Your task to perform on an android device: Clear the shopping cart on ebay. Add dell xps to the cart on ebay, then select checkout. Image 0: 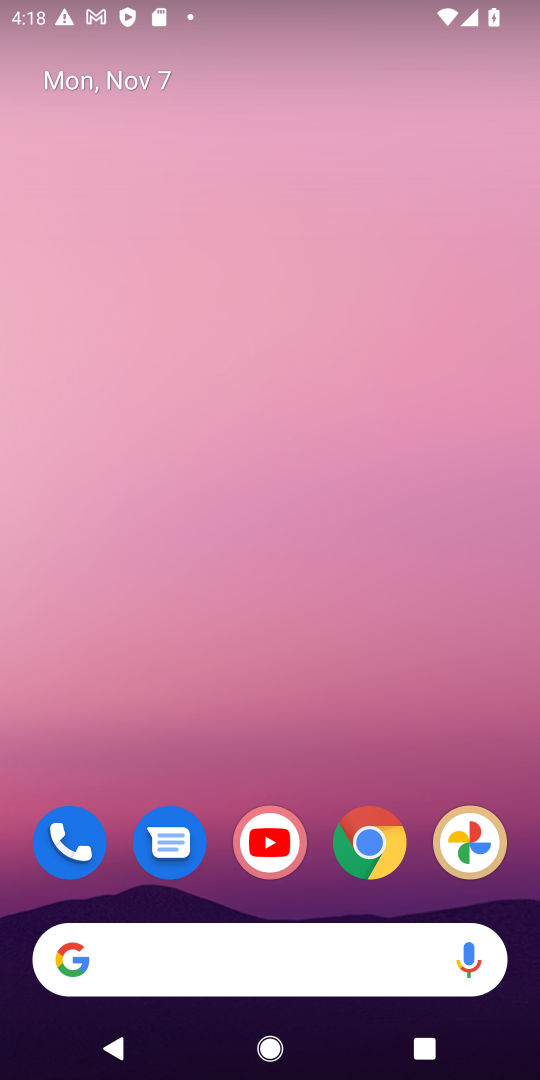
Step 0: drag from (90, 915) to (37, 194)
Your task to perform on an android device: Clear the shopping cart on ebay. Add dell xps to the cart on ebay, then select checkout. Image 1: 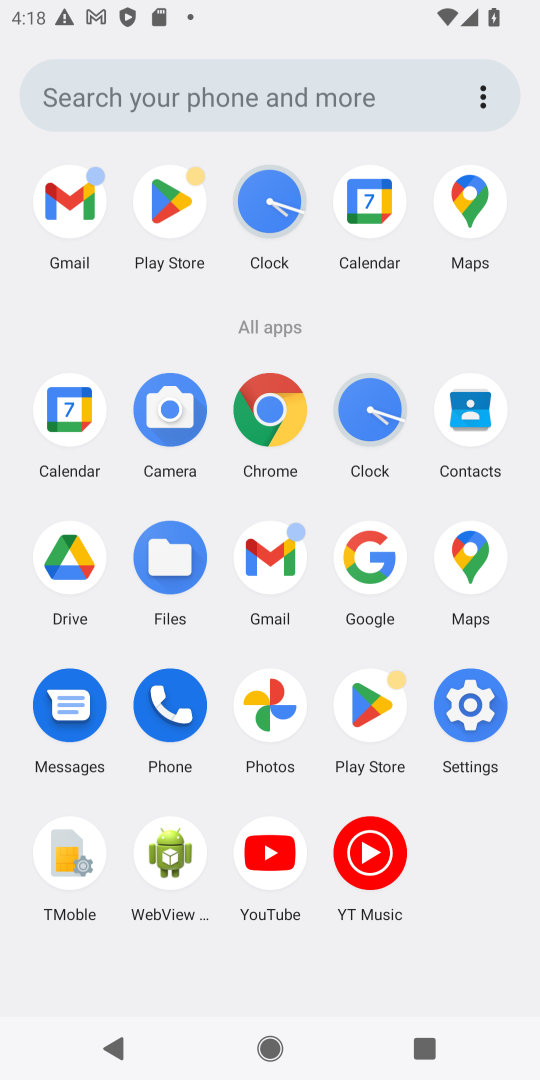
Step 1: click (262, 422)
Your task to perform on an android device: Clear the shopping cart on ebay. Add dell xps to the cart on ebay, then select checkout. Image 2: 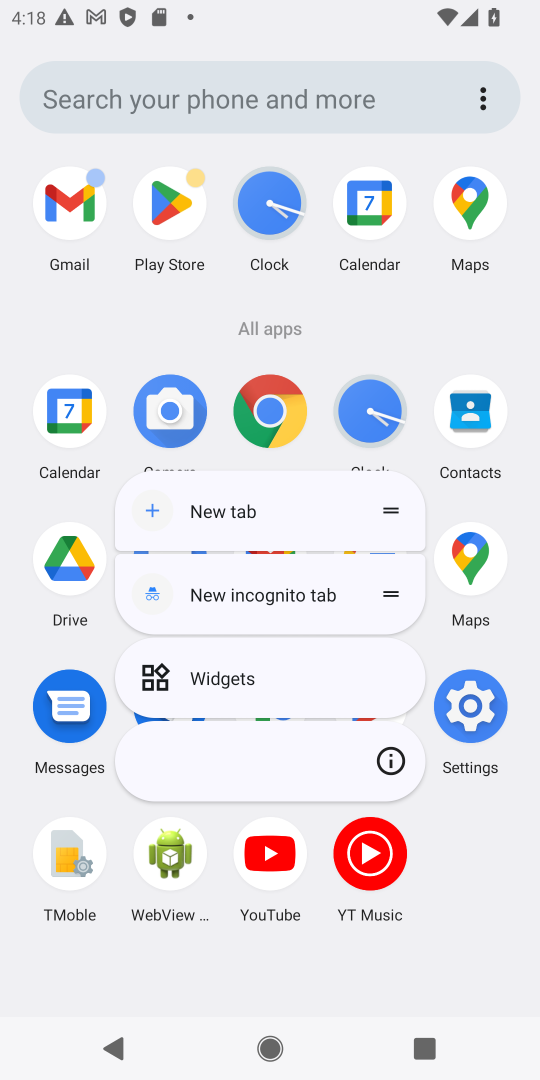
Step 2: click (258, 423)
Your task to perform on an android device: Clear the shopping cart on ebay. Add dell xps to the cart on ebay, then select checkout. Image 3: 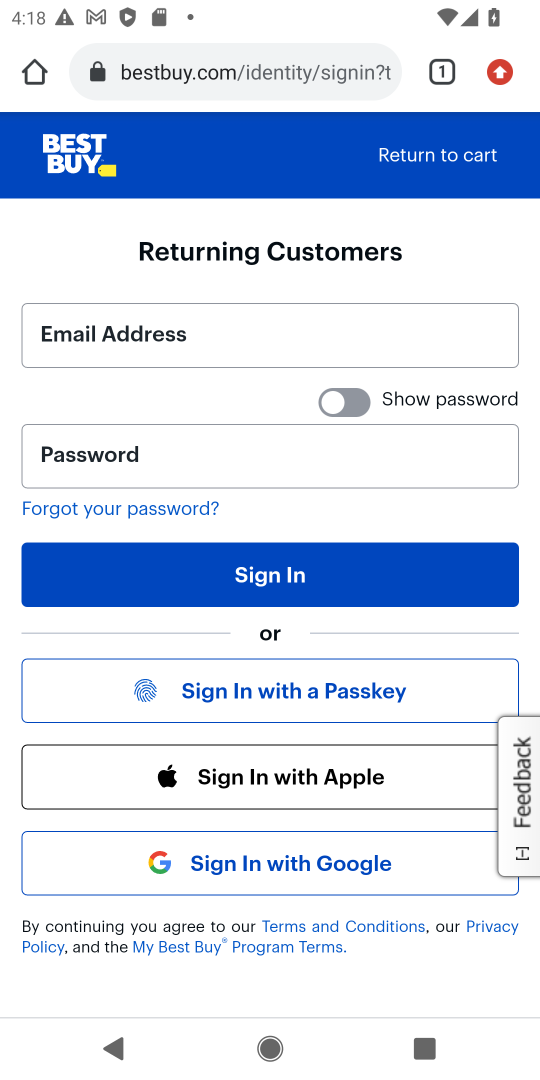
Step 3: click (227, 70)
Your task to perform on an android device: Clear the shopping cart on ebay. Add dell xps to the cart on ebay, then select checkout. Image 4: 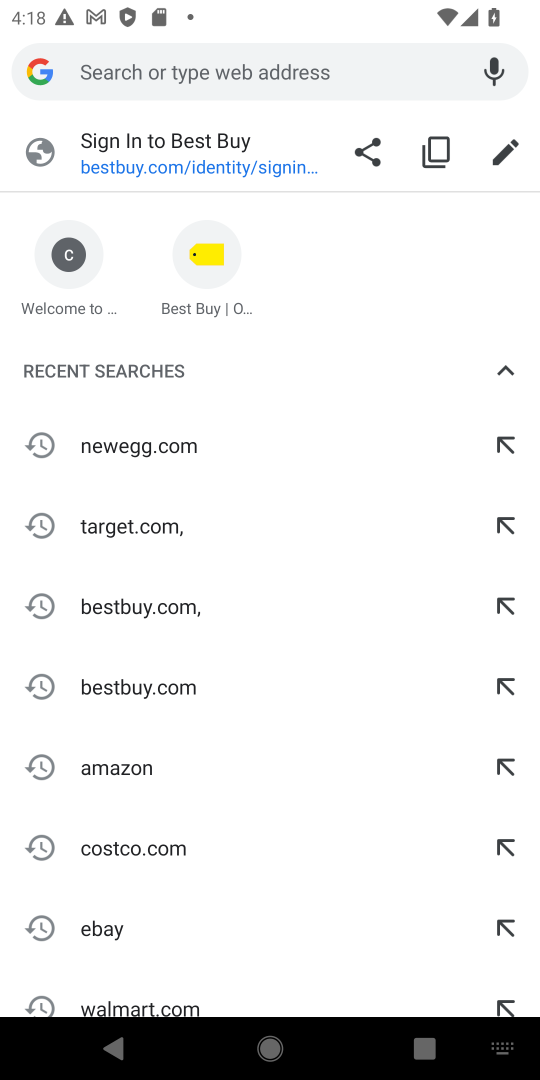
Step 4: type "ebay"
Your task to perform on an android device: Clear the shopping cart on ebay. Add dell xps to the cart on ebay, then select checkout. Image 5: 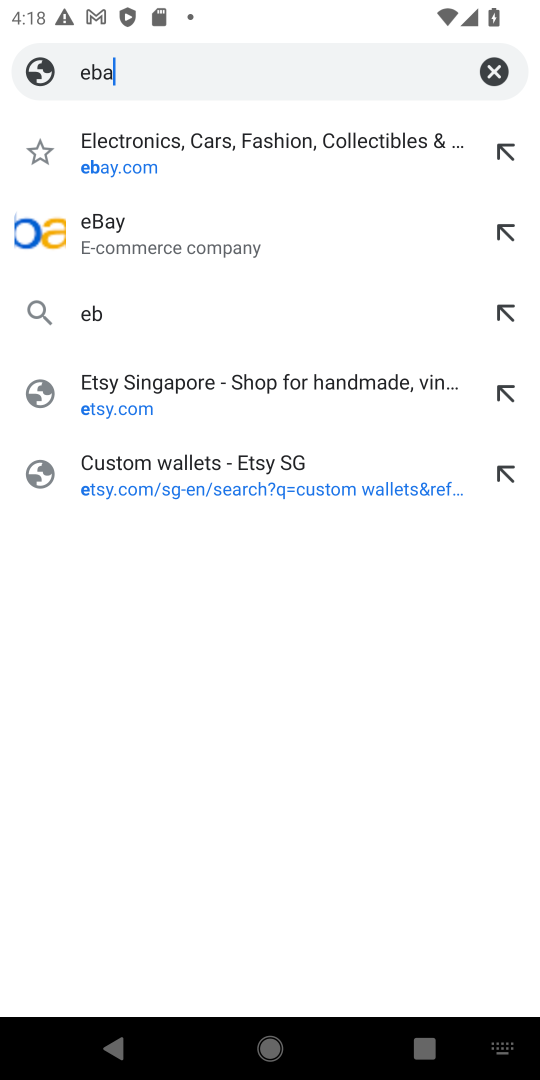
Step 5: press enter
Your task to perform on an android device: Clear the shopping cart on ebay. Add dell xps to the cart on ebay, then select checkout. Image 6: 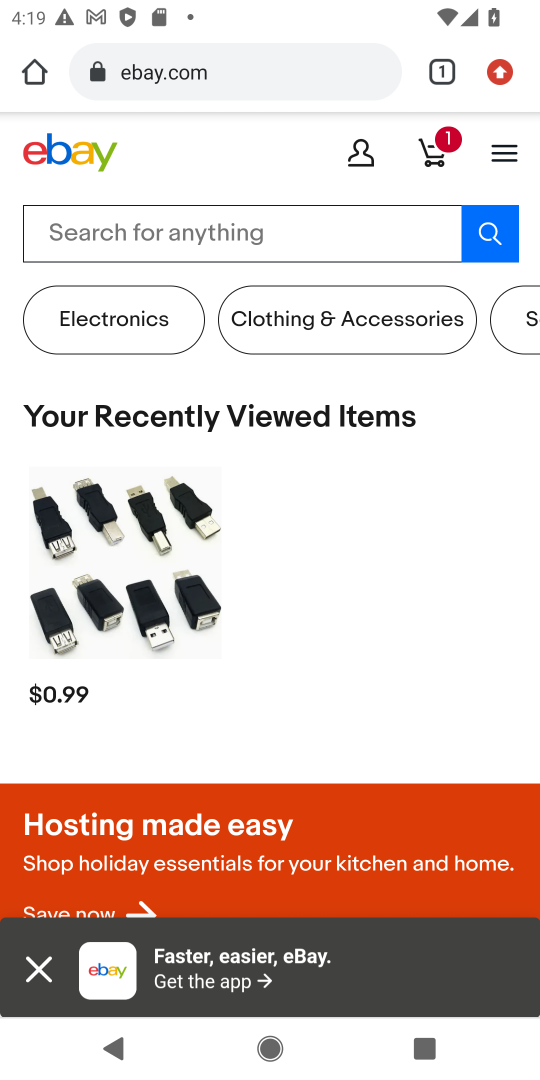
Step 6: click (442, 154)
Your task to perform on an android device: Clear the shopping cart on ebay. Add dell xps to the cart on ebay, then select checkout. Image 7: 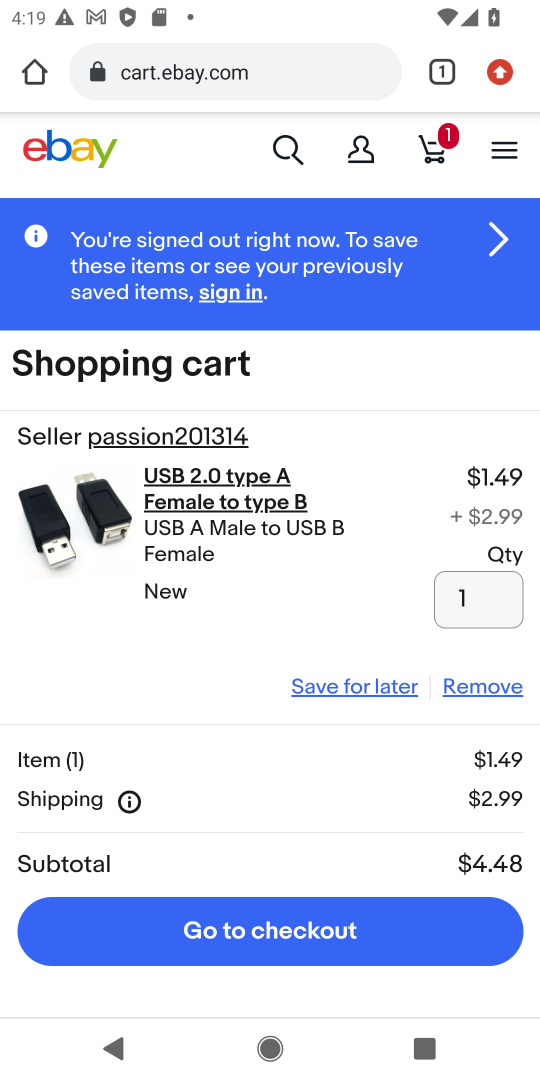
Step 7: click (483, 681)
Your task to perform on an android device: Clear the shopping cart on ebay. Add dell xps to the cart on ebay, then select checkout. Image 8: 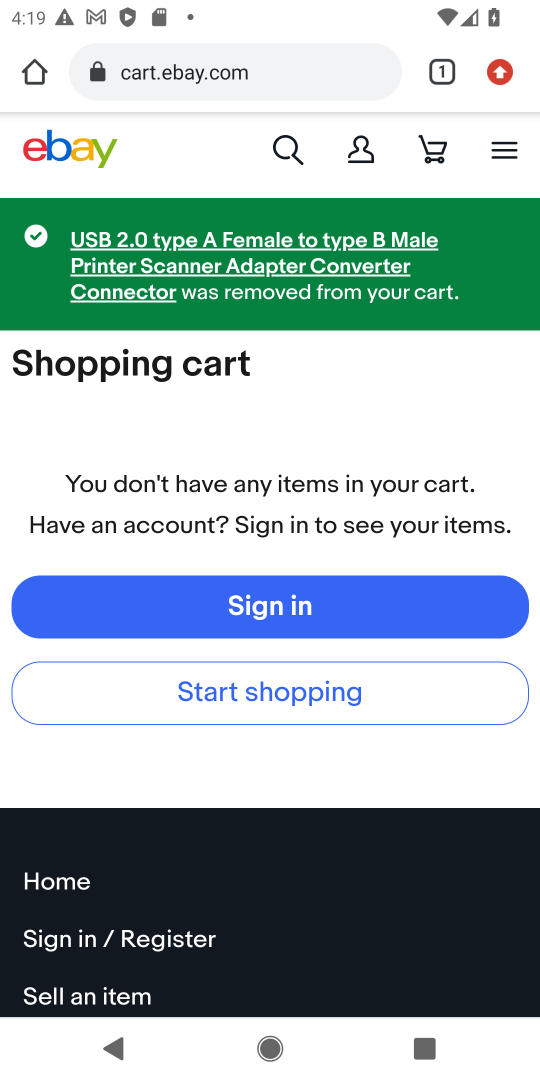
Step 8: click (287, 161)
Your task to perform on an android device: Clear the shopping cart on ebay. Add dell xps to the cart on ebay, then select checkout. Image 9: 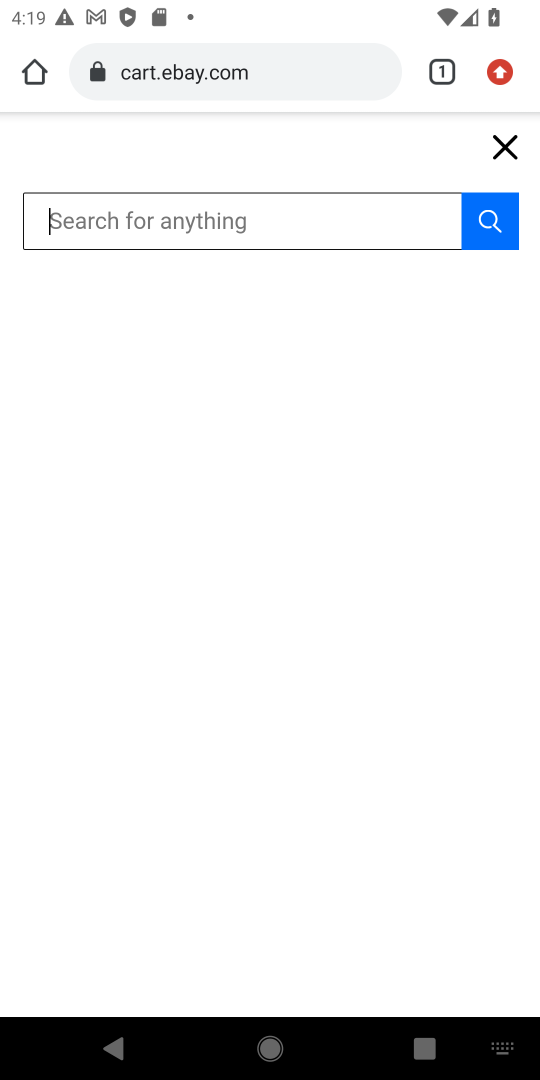
Step 9: type "dell xps"
Your task to perform on an android device: Clear the shopping cart on ebay. Add dell xps to the cart on ebay, then select checkout. Image 10: 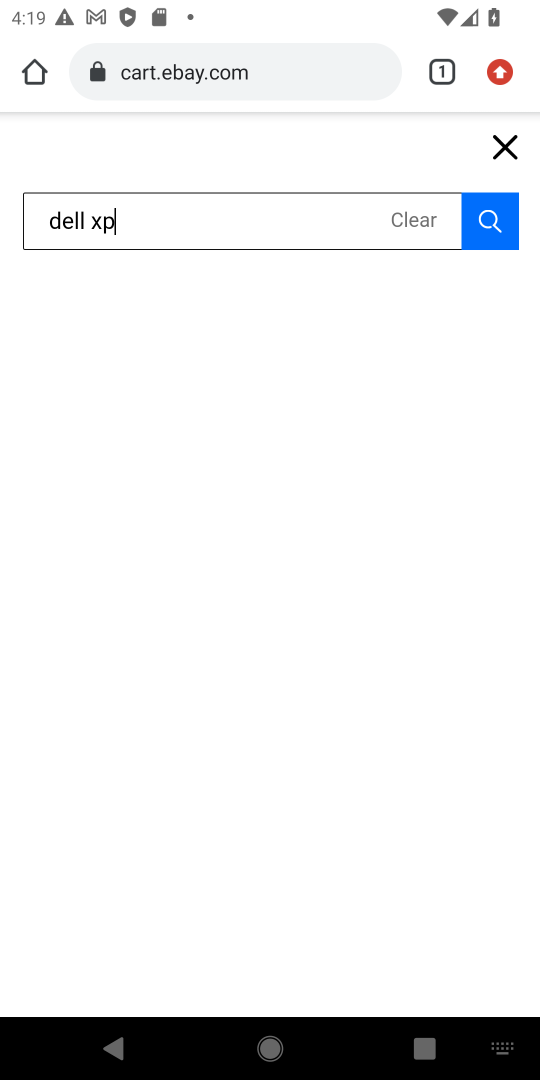
Step 10: press enter
Your task to perform on an android device: Clear the shopping cart on ebay. Add dell xps to the cart on ebay, then select checkout. Image 11: 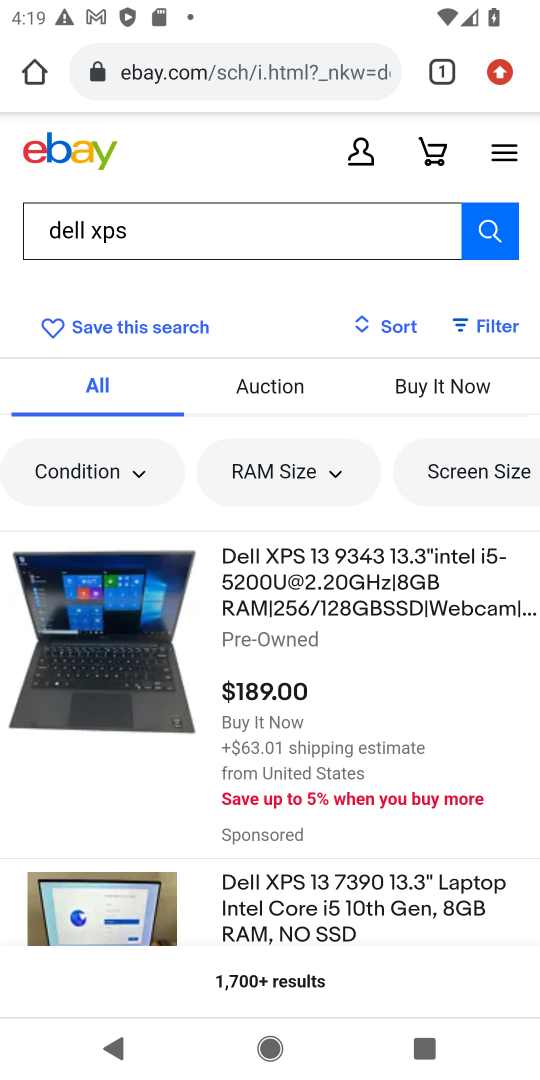
Step 11: click (102, 687)
Your task to perform on an android device: Clear the shopping cart on ebay. Add dell xps to the cart on ebay, then select checkout. Image 12: 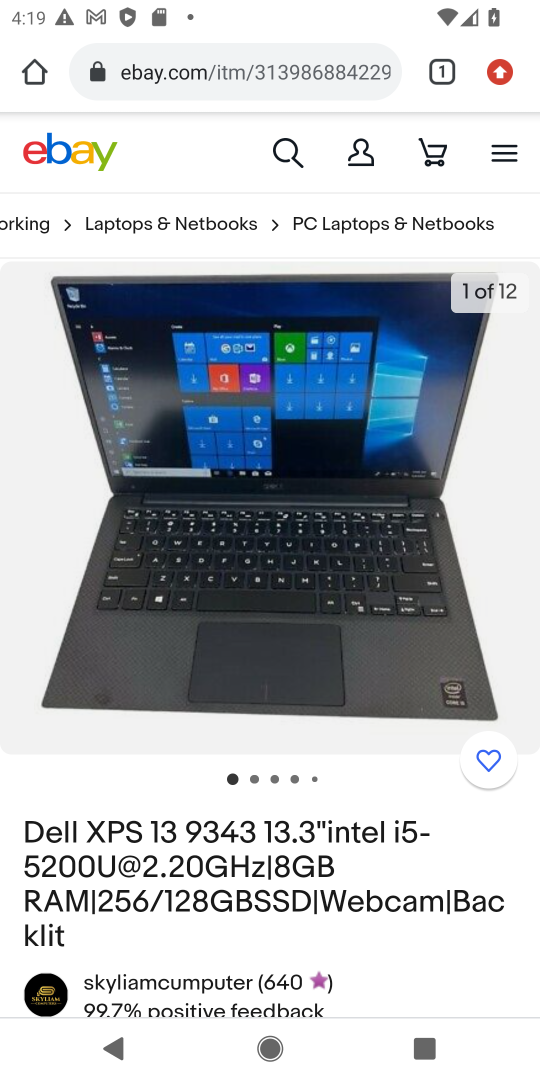
Step 12: drag from (211, 904) to (283, 411)
Your task to perform on an android device: Clear the shopping cart on ebay. Add dell xps to the cart on ebay, then select checkout. Image 13: 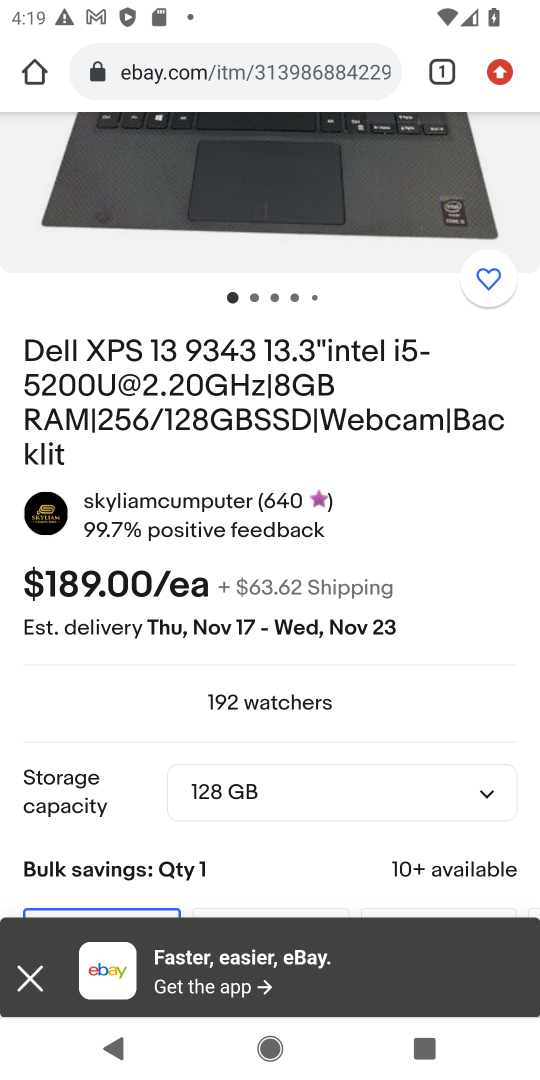
Step 13: drag from (345, 738) to (463, 267)
Your task to perform on an android device: Clear the shopping cart on ebay. Add dell xps to the cart on ebay, then select checkout. Image 14: 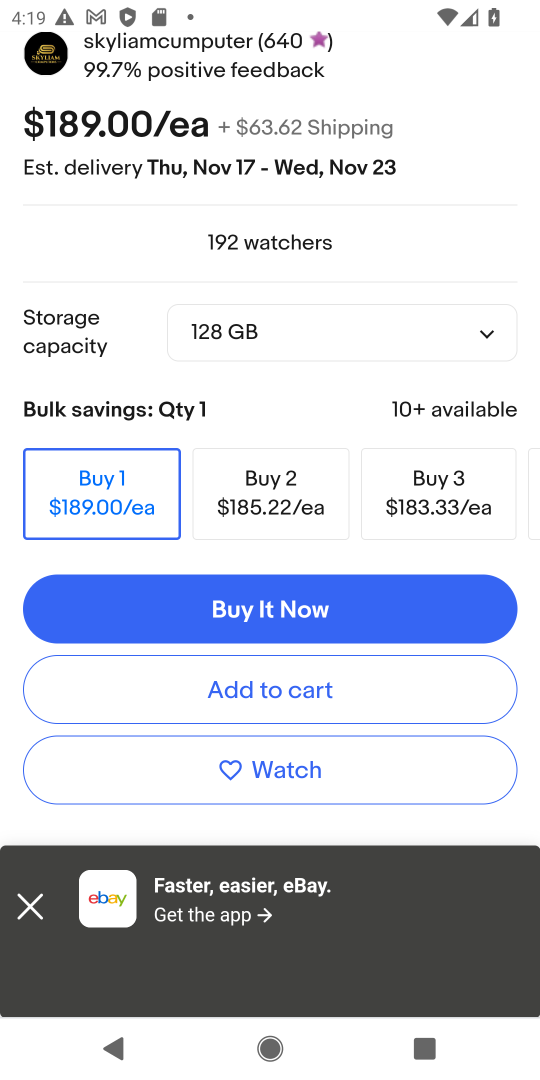
Step 14: click (289, 694)
Your task to perform on an android device: Clear the shopping cart on ebay. Add dell xps to the cart on ebay, then select checkout. Image 15: 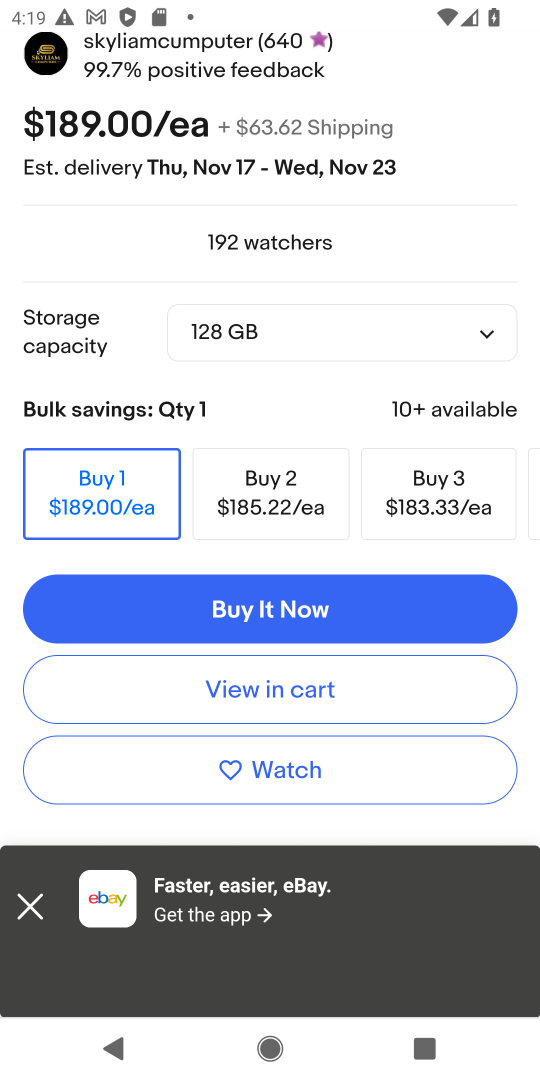
Step 15: click (315, 695)
Your task to perform on an android device: Clear the shopping cart on ebay. Add dell xps to the cart on ebay, then select checkout. Image 16: 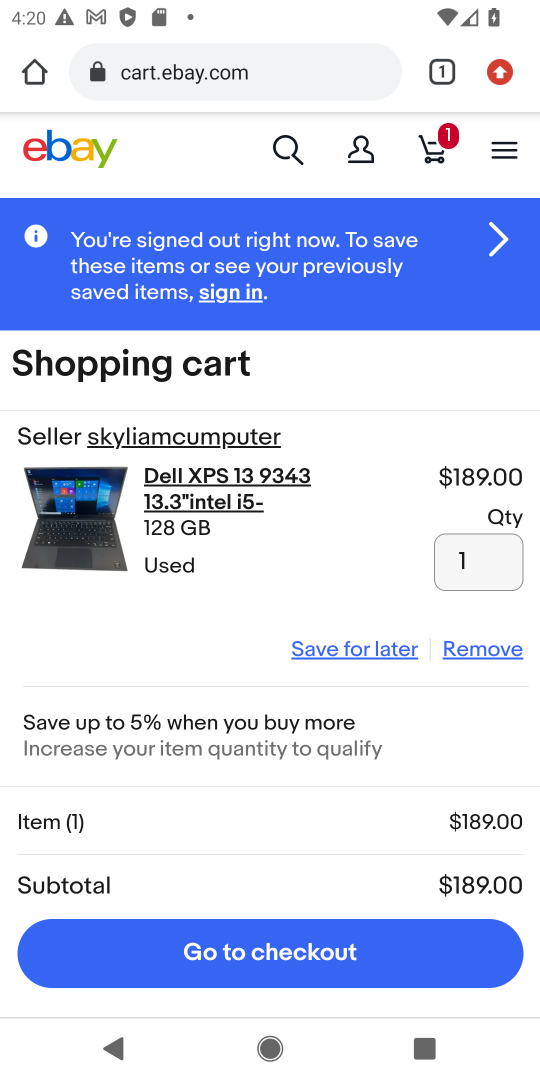
Step 16: click (318, 951)
Your task to perform on an android device: Clear the shopping cart on ebay. Add dell xps to the cart on ebay, then select checkout. Image 17: 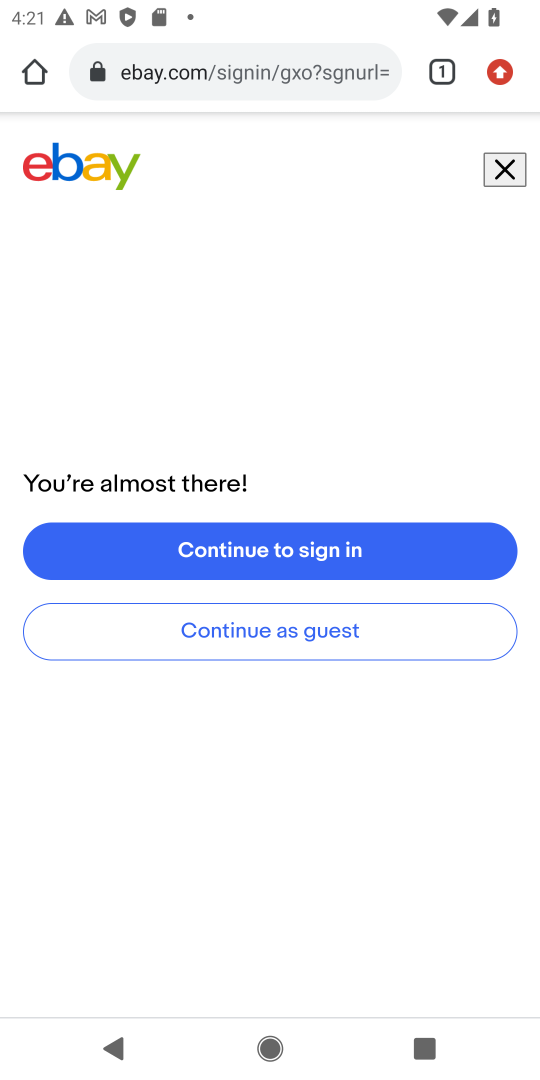
Step 17: task complete